Your task to perform on an android device: Show me recent news Image 0: 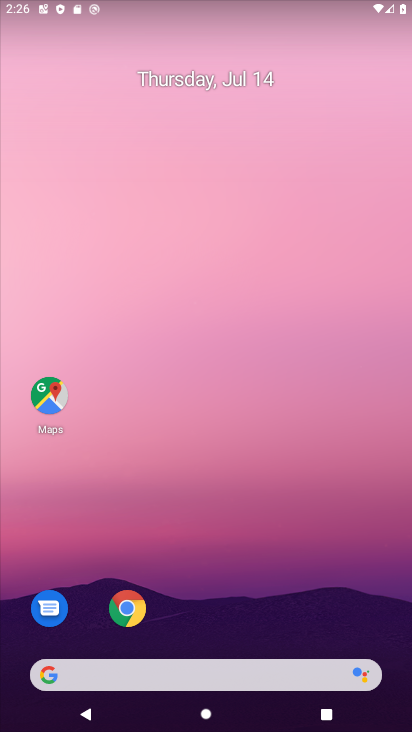
Step 0: drag from (262, 283) to (286, 46)
Your task to perform on an android device: Show me recent news Image 1: 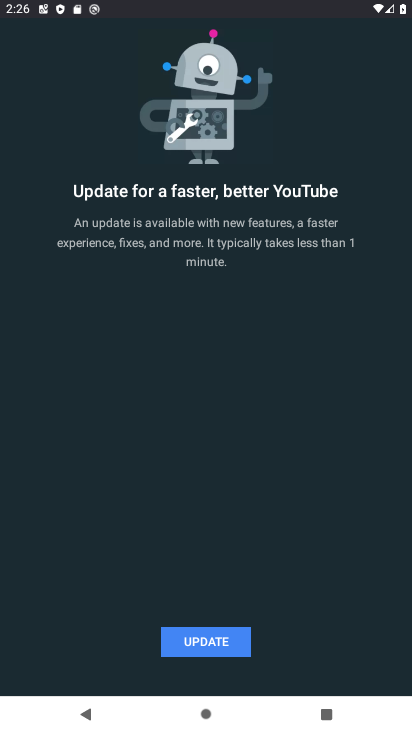
Step 1: press back button
Your task to perform on an android device: Show me recent news Image 2: 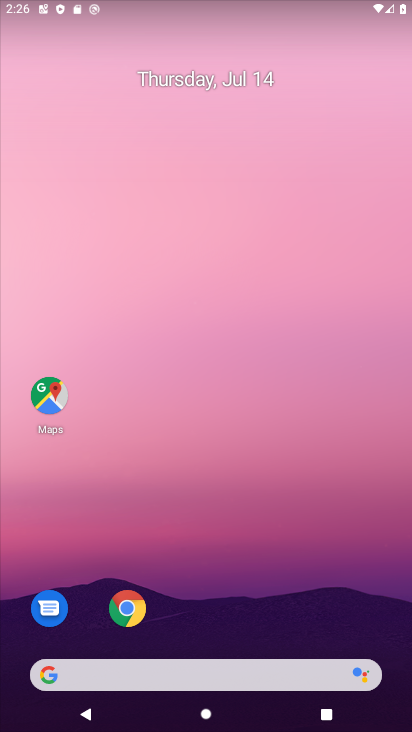
Step 2: drag from (292, 590) to (271, 36)
Your task to perform on an android device: Show me recent news Image 3: 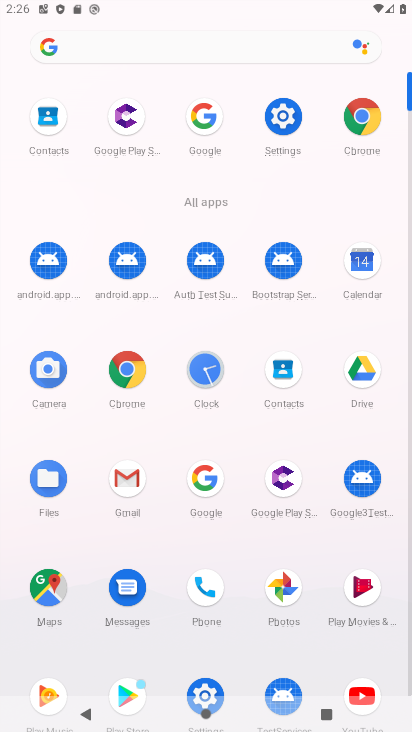
Step 3: click (148, 53)
Your task to perform on an android device: Show me recent news Image 4: 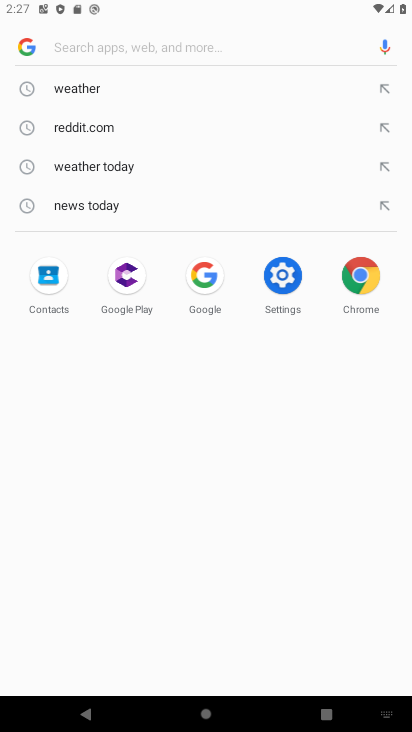
Step 4: type "recent news"
Your task to perform on an android device: Show me recent news Image 5: 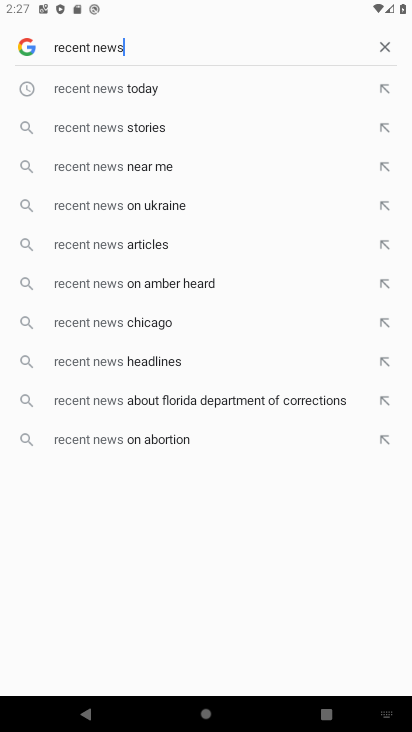
Step 5: click (117, 92)
Your task to perform on an android device: Show me recent news Image 6: 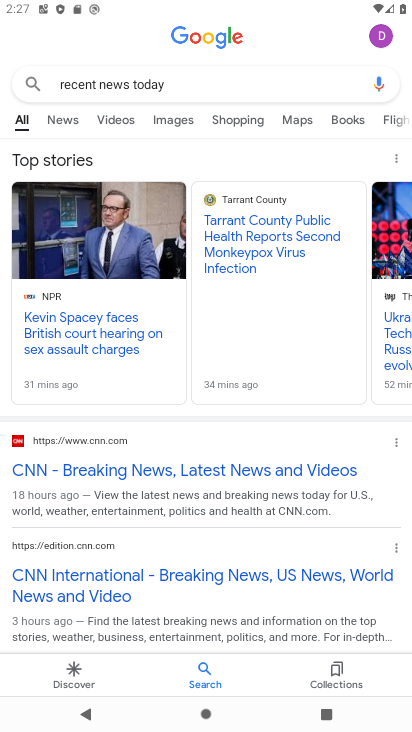
Step 6: task complete